Your task to perform on an android device: Search for vegetarian restaurants on Maps Image 0: 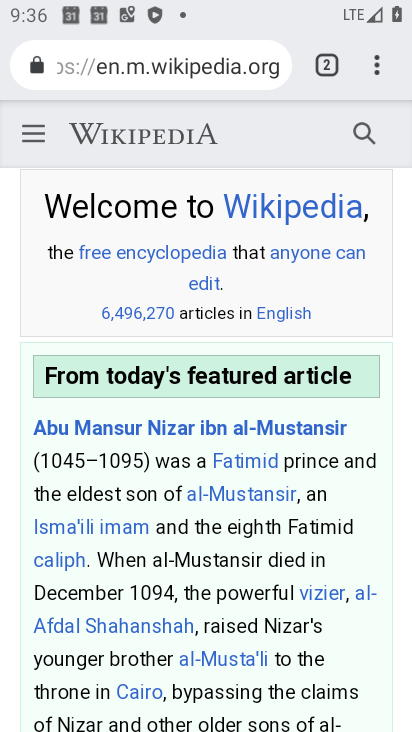
Step 0: press home button
Your task to perform on an android device: Search for vegetarian restaurants on Maps Image 1: 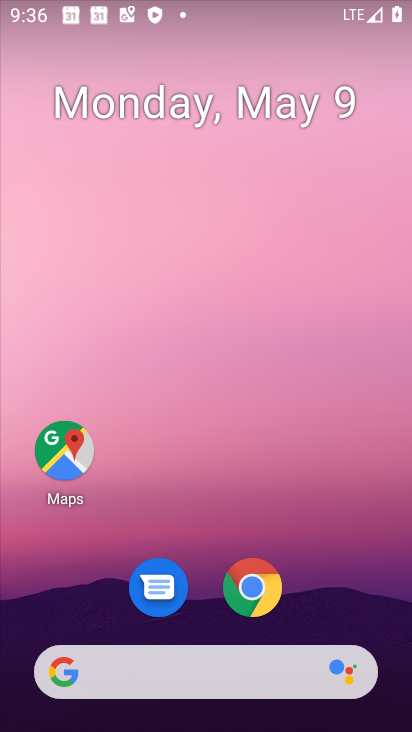
Step 1: click (61, 456)
Your task to perform on an android device: Search for vegetarian restaurants on Maps Image 2: 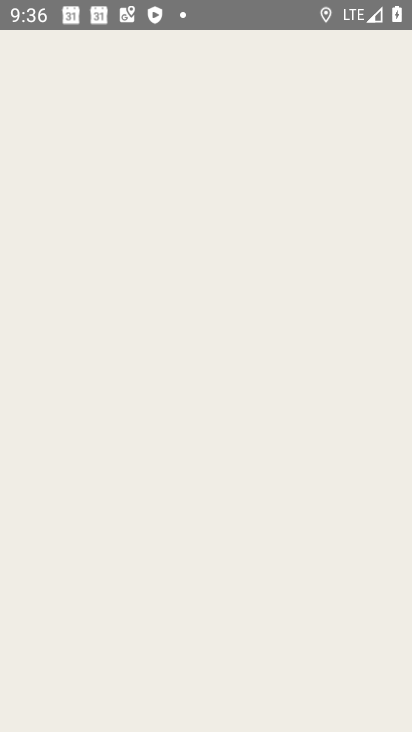
Step 2: click (61, 456)
Your task to perform on an android device: Search for vegetarian restaurants on Maps Image 3: 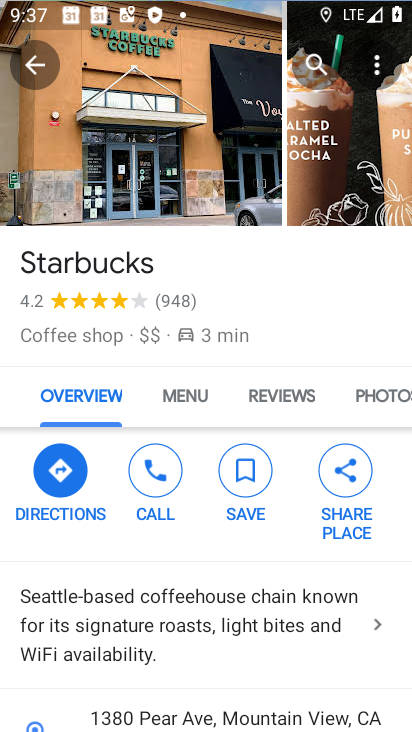
Step 3: click (54, 69)
Your task to perform on an android device: Search for vegetarian restaurants on Maps Image 4: 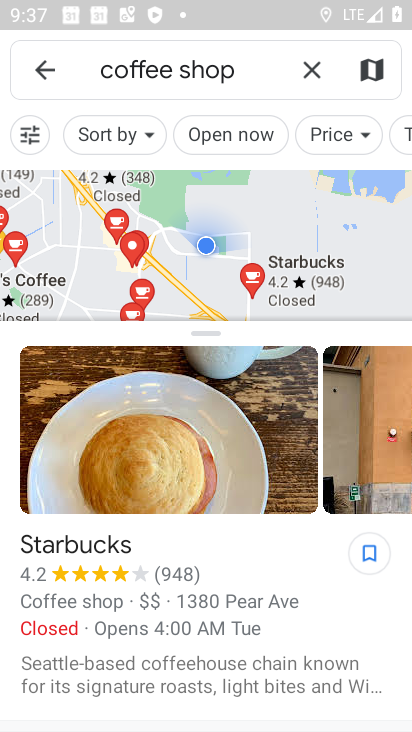
Step 4: click (302, 72)
Your task to perform on an android device: Search for vegetarian restaurants on Maps Image 5: 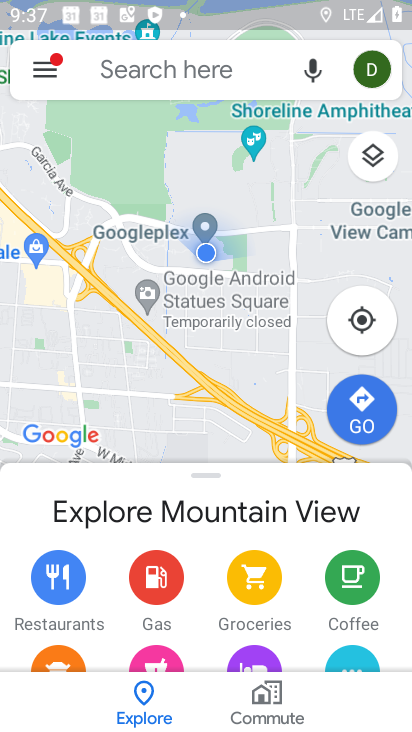
Step 5: click (189, 73)
Your task to perform on an android device: Search for vegetarian restaurants on Maps Image 6: 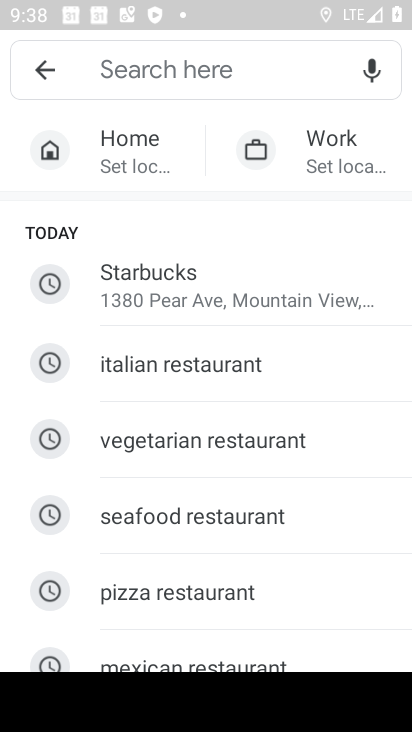
Step 6: click (179, 448)
Your task to perform on an android device: Search for vegetarian restaurants on Maps Image 7: 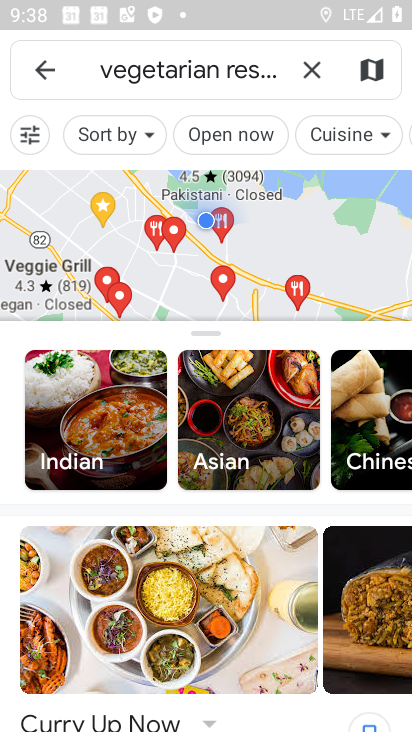
Step 7: task complete